Your task to perform on an android device: turn on translation in the chrome app Image 0: 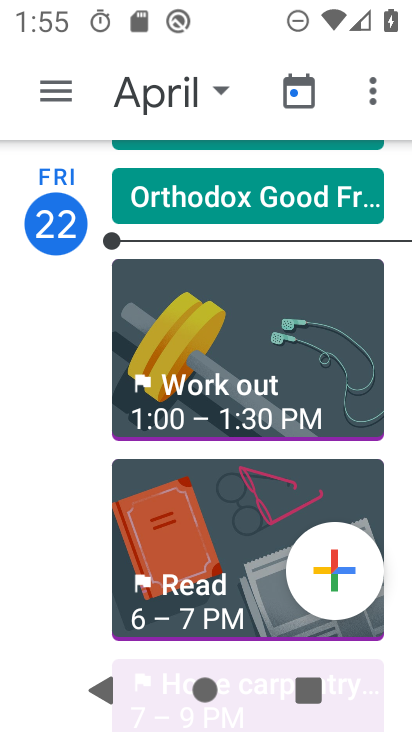
Step 0: press home button
Your task to perform on an android device: turn on translation in the chrome app Image 1: 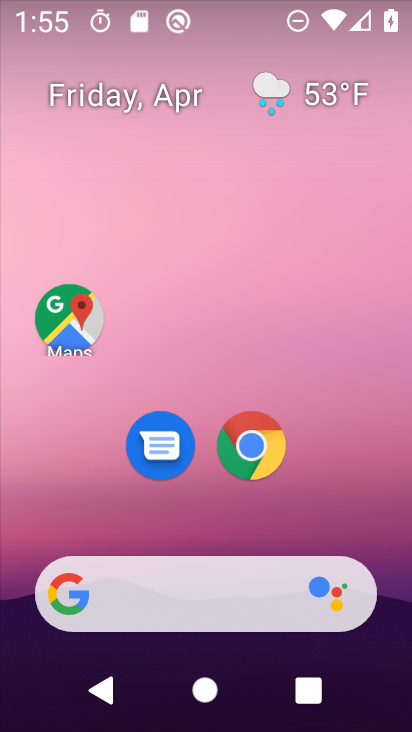
Step 1: drag from (352, 503) to (340, 143)
Your task to perform on an android device: turn on translation in the chrome app Image 2: 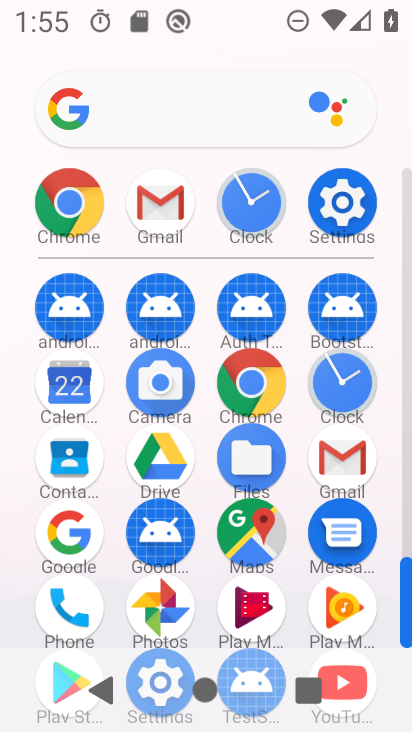
Step 2: click (252, 383)
Your task to perform on an android device: turn on translation in the chrome app Image 3: 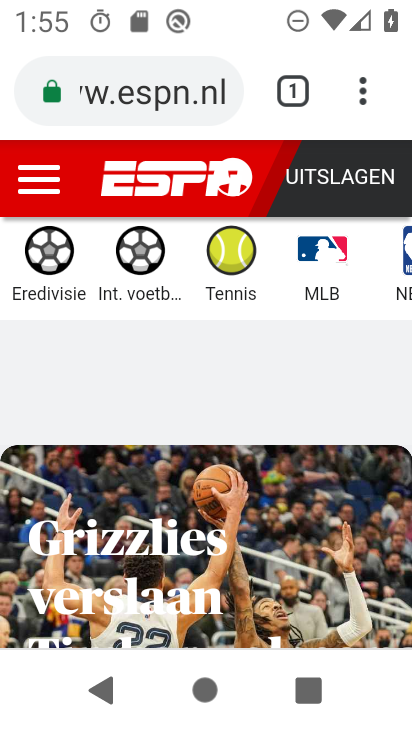
Step 3: click (364, 93)
Your task to perform on an android device: turn on translation in the chrome app Image 4: 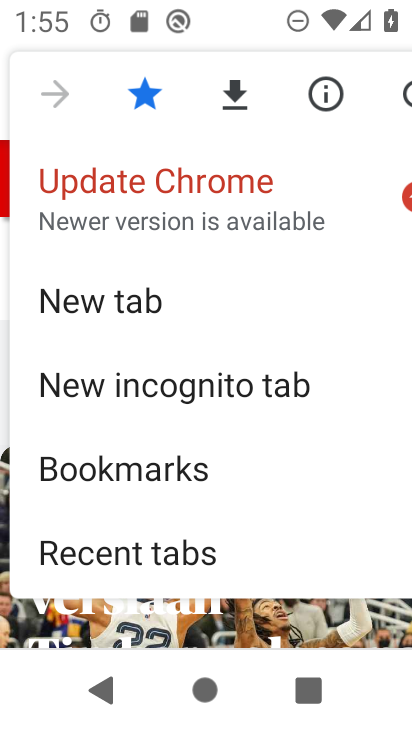
Step 4: drag from (333, 508) to (342, 315)
Your task to perform on an android device: turn on translation in the chrome app Image 5: 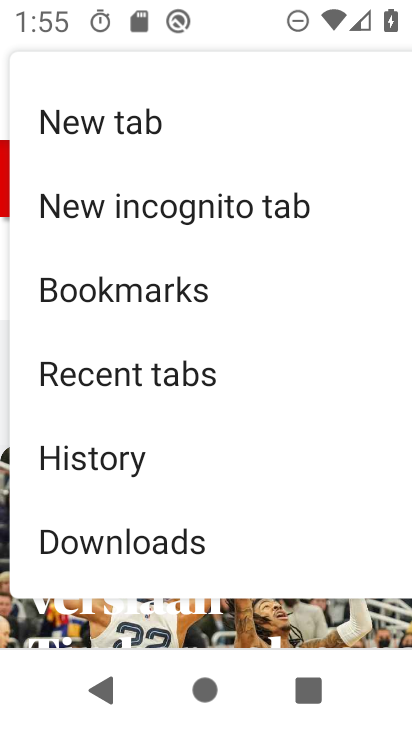
Step 5: drag from (311, 521) to (323, 311)
Your task to perform on an android device: turn on translation in the chrome app Image 6: 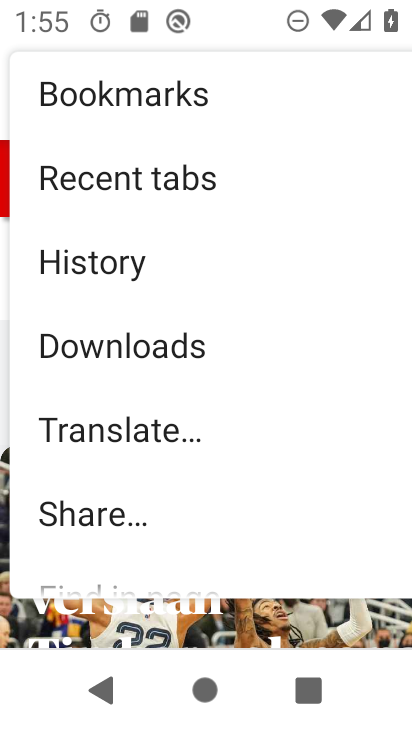
Step 6: drag from (289, 522) to (303, 206)
Your task to perform on an android device: turn on translation in the chrome app Image 7: 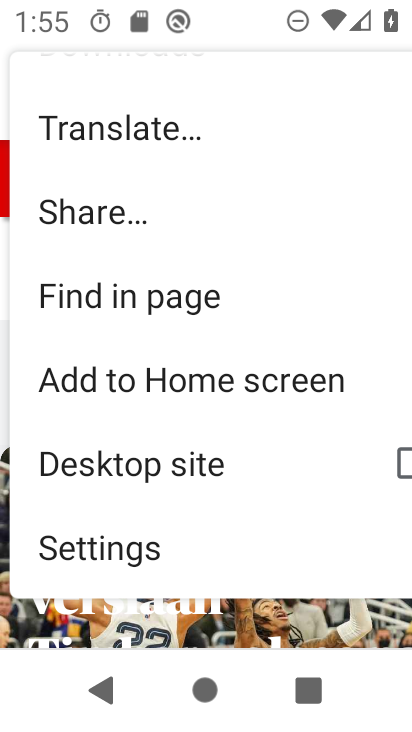
Step 7: drag from (281, 500) to (280, 285)
Your task to perform on an android device: turn on translation in the chrome app Image 8: 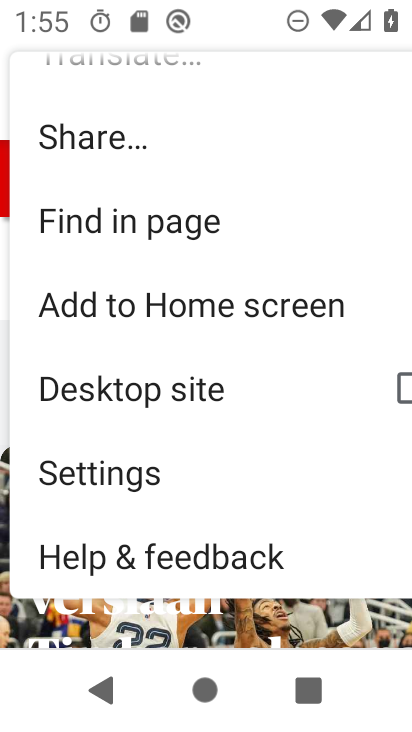
Step 8: click (143, 480)
Your task to perform on an android device: turn on translation in the chrome app Image 9: 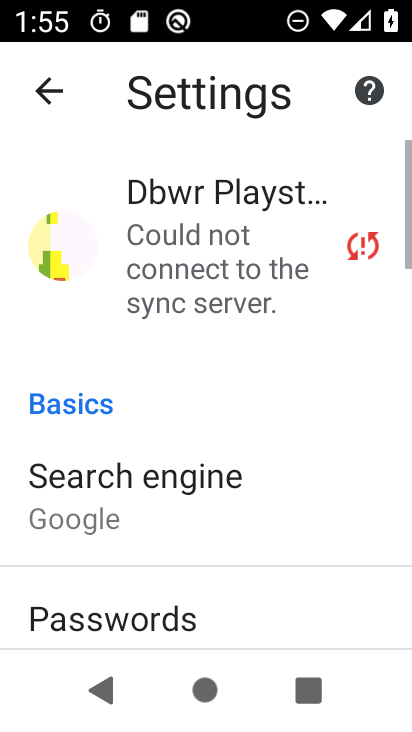
Step 9: drag from (272, 563) to (275, 359)
Your task to perform on an android device: turn on translation in the chrome app Image 10: 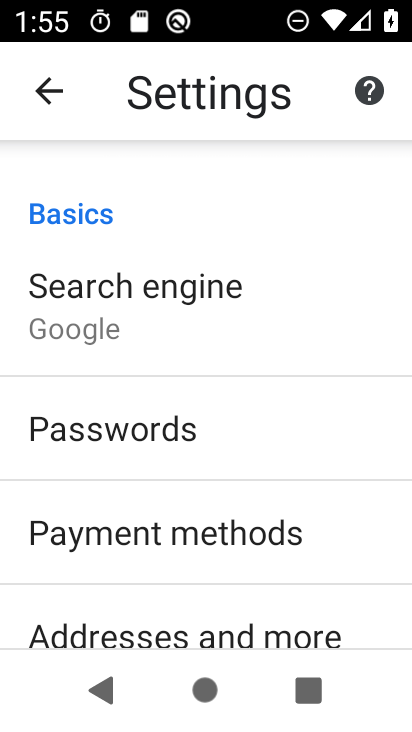
Step 10: drag from (327, 564) to (333, 376)
Your task to perform on an android device: turn on translation in the chrome app Image 11: 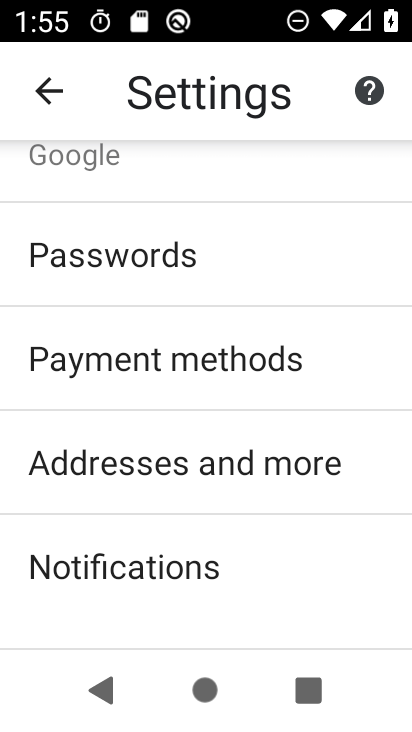
Step 11: drag from (335, 604) to (340, 400)
Your task to perform on an android device: turn on translation in the chrome app Image 12: 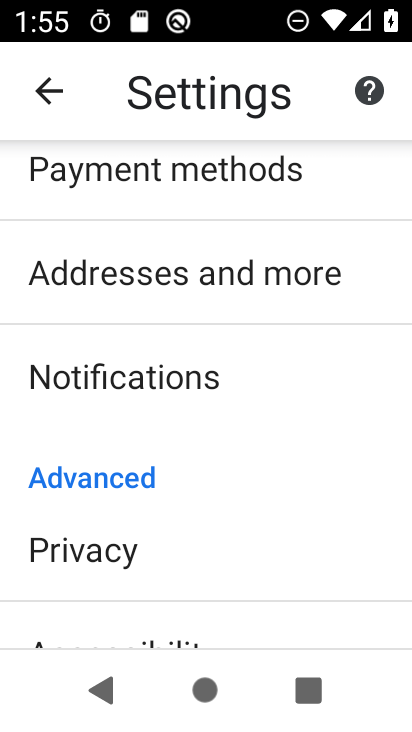
Step 12: drag from (306, 592) to (304, 405)
Your task to perform on an android device: turn on translation in the chrome app Image 13: 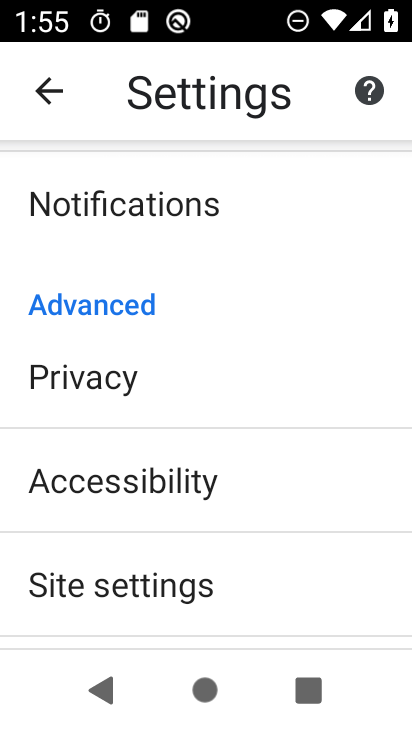
Step 13: drag from (274, 557) to (270, 375)
Your task to perform on an android device: turn on translation in the chrome app Image 14: 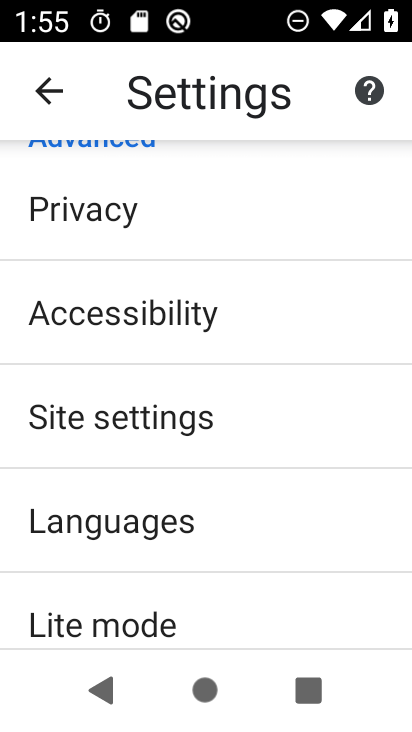
Step 14: drag from (290, 587) to (289, 377)
Your task to perform on an android device: turn on translation in the chrome app Image 15: 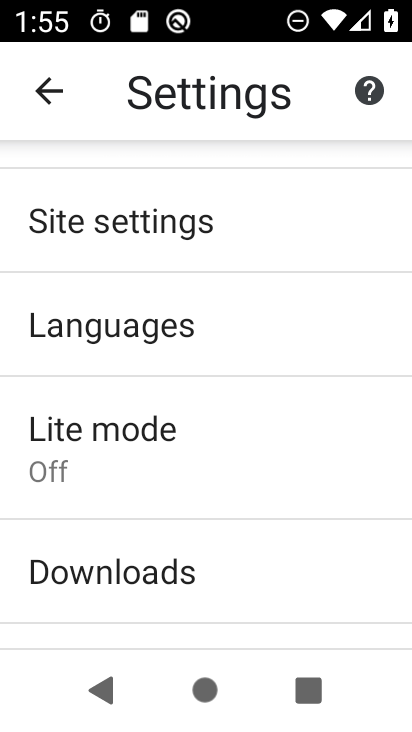
Step 15: click (239, 338)
Your task to perform on an android device: turn on translation in the chrome app Image 16: 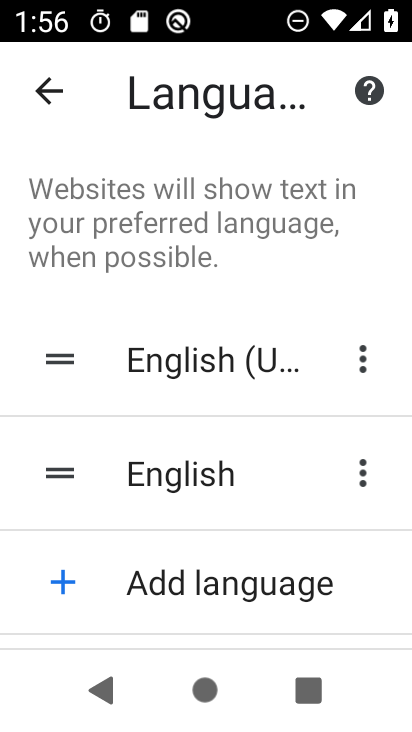
Step 16: drag from (263, 516) to (281, 281)
Your task to perform on an android device: turn on translation in the chrome app Image 17: 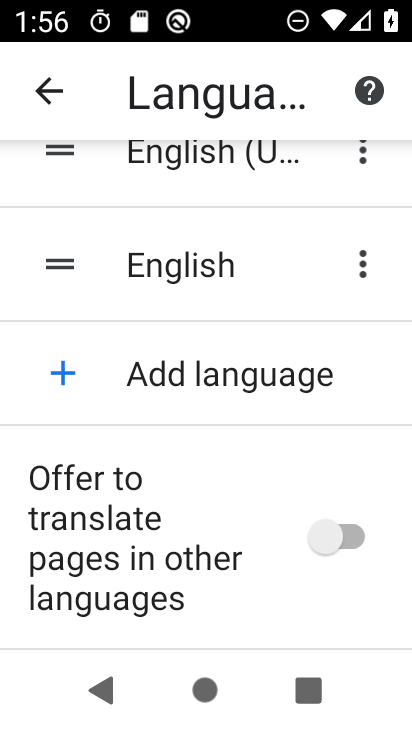
Step 17: click (342, 532)
Your task to perform on an android device: turn on translation in the chrome app Image 18: 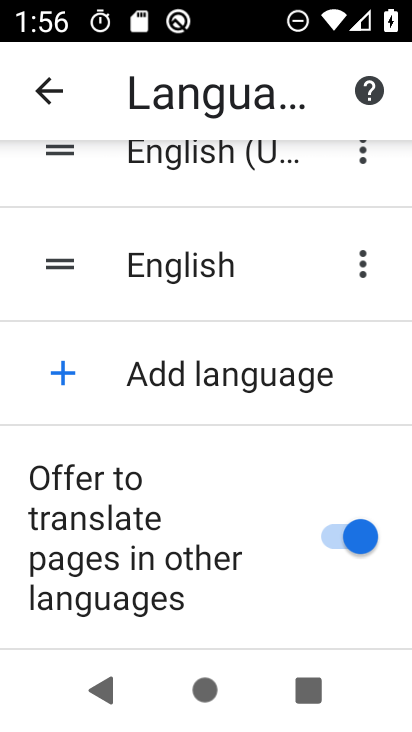
Step 18: task complete